Your task to perform on an android device: set the timer Image 0: 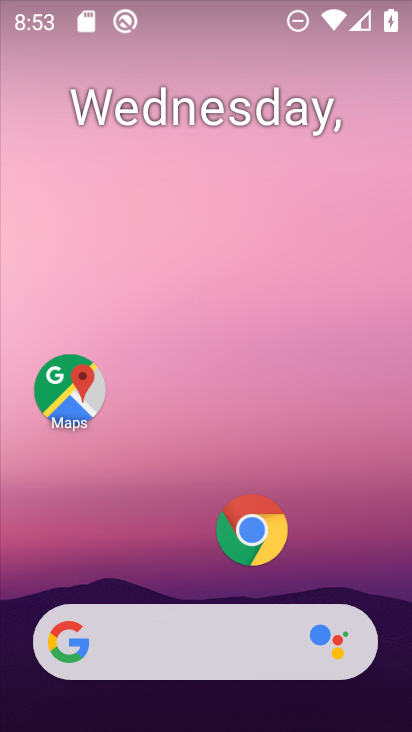
Step 0: drag from (209, 520) to (309, 57)
Your task to perform on an android device: set the timer Image 1: 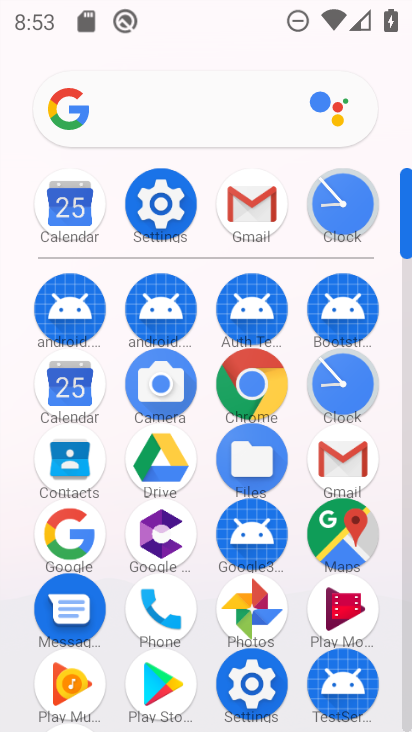
Step 1: click (358, 202)
Your task to perform on an android device: set the timer Image 2: 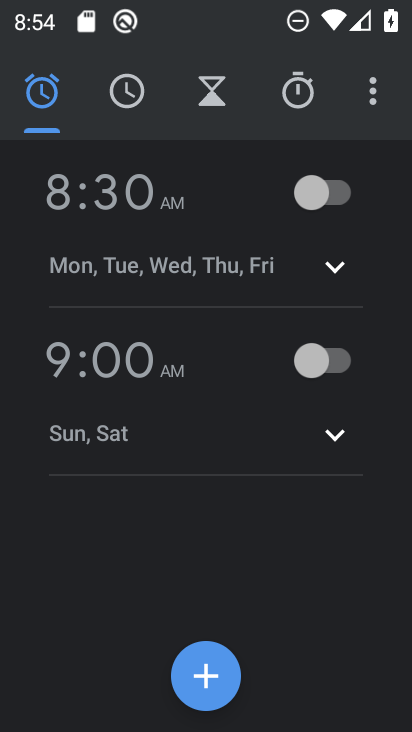
Step 2: click (217, 83)
Your task to perform on an android device: set the timer Image 3: 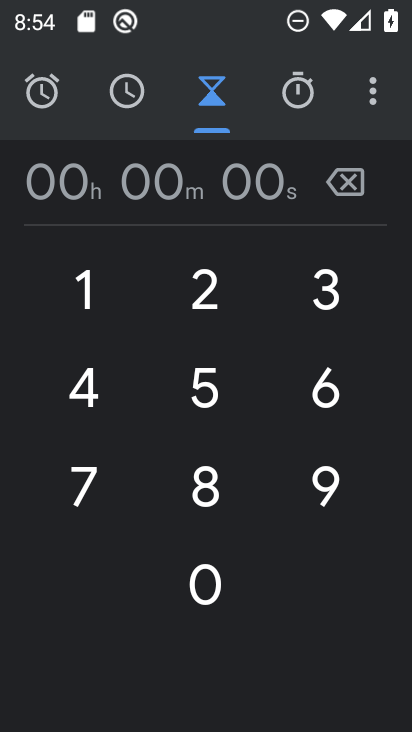
Step 3: click (206, 279)
Your task to perform on an android device: set the timer Image 4: 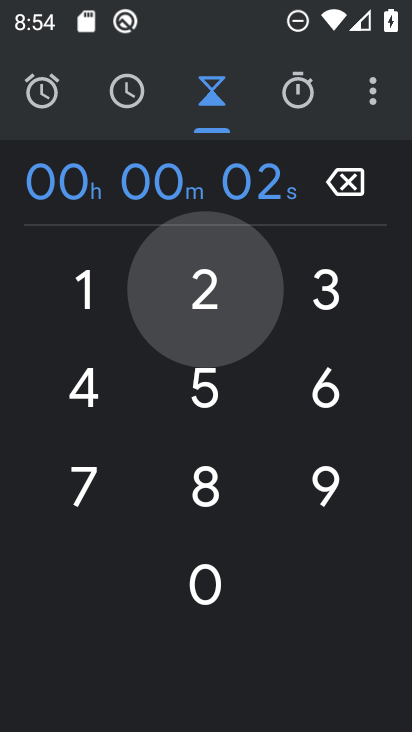
Step 4: click (317, 270)
Your task to perform on an android device: set the timer Image 5: 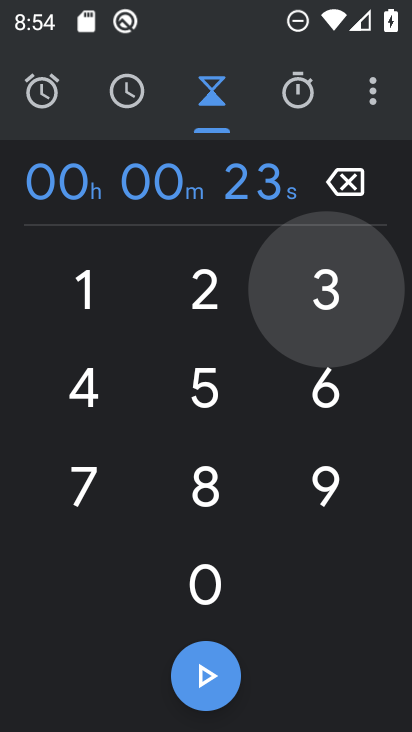
Step 5: click (193, 364)
Your task to perform on an android device: set the timer Image 6: 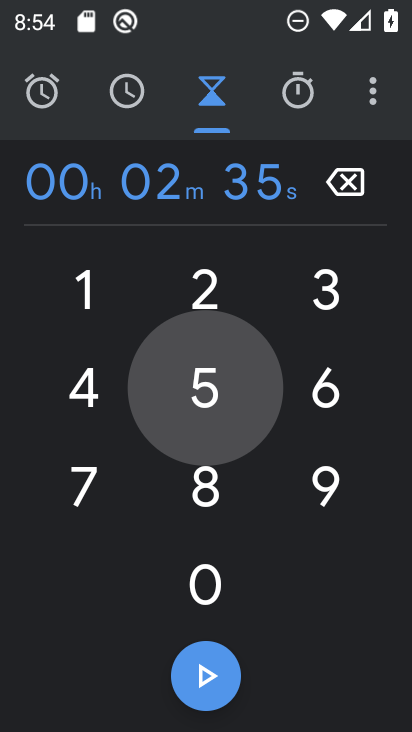
Step 6: click (320, 390)
Your task to perform on an android device: set the timer Image 7: 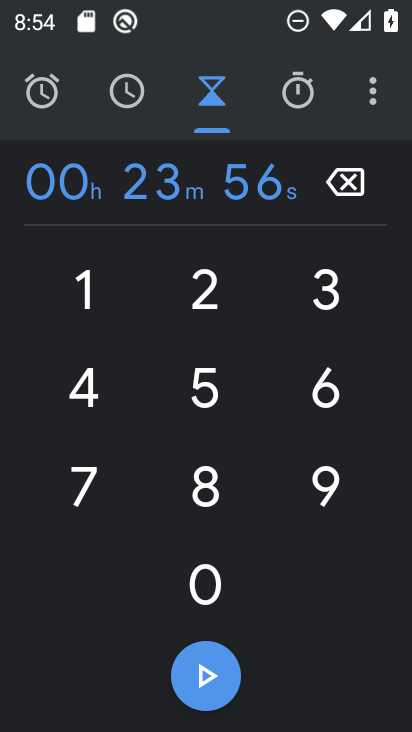
Step 7: task complete